Your task to perform on an android device: Go to Google maps Image 0: 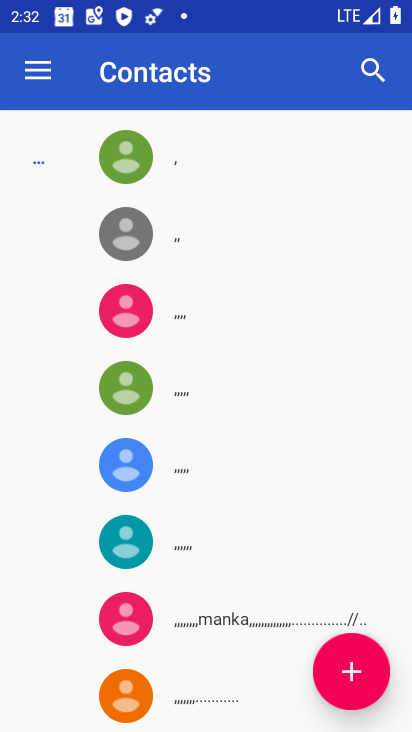
Step 0: press home button
Your task to perform on an android device: Go to Google maps Image 1: 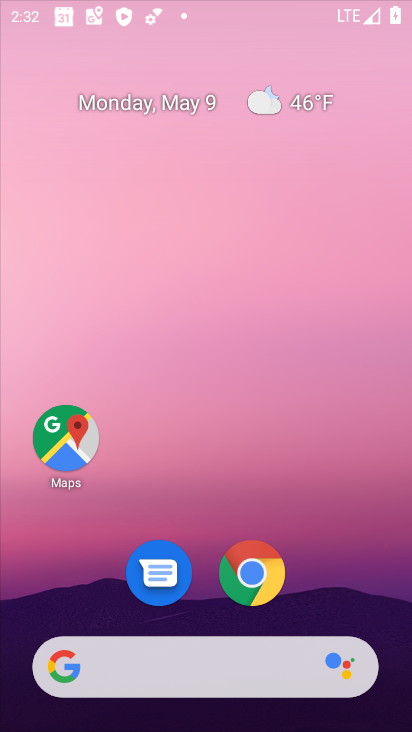
Step 1: click (63, 433)
Your task to perform on an android device: Go to Google maps Image 2: 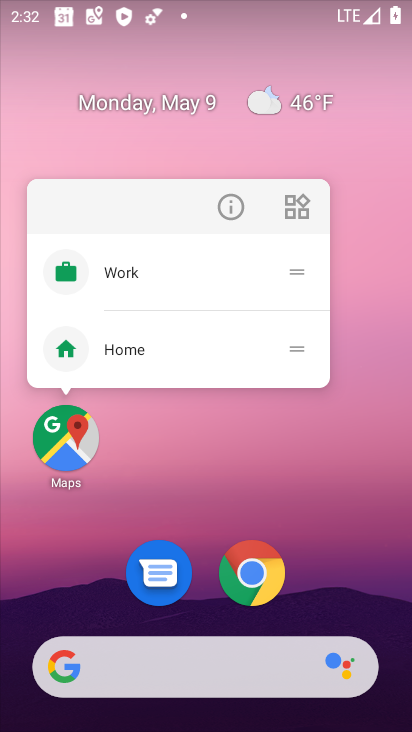
Step 2: click (68, 433)
Your task to perform on an android device: Go to Google maps Image 3: 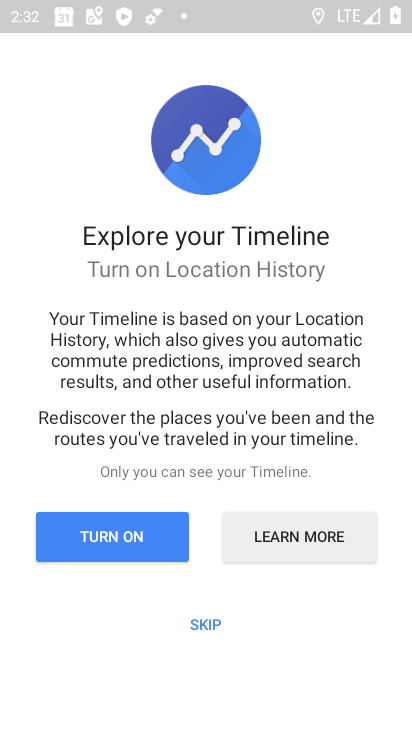
Step 3: click (216, 623)
Your task to perform on an android device: Go to Google maps Image 4: 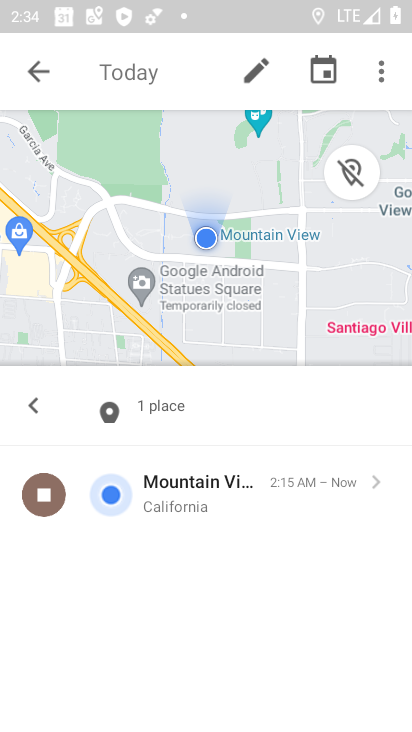
Step 4: task complete